Your task to perform on an android device: all mails in gmail Image 0: 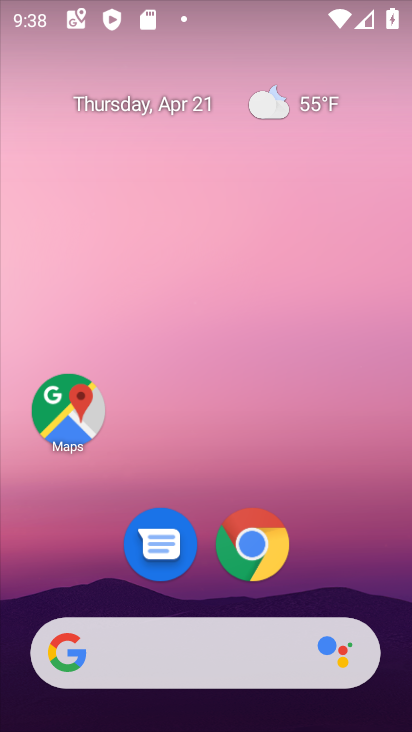
Step 0: drag from (334, 544) to (215, 3)
Your task to perform on an android device: all mails in gmail Image 1: 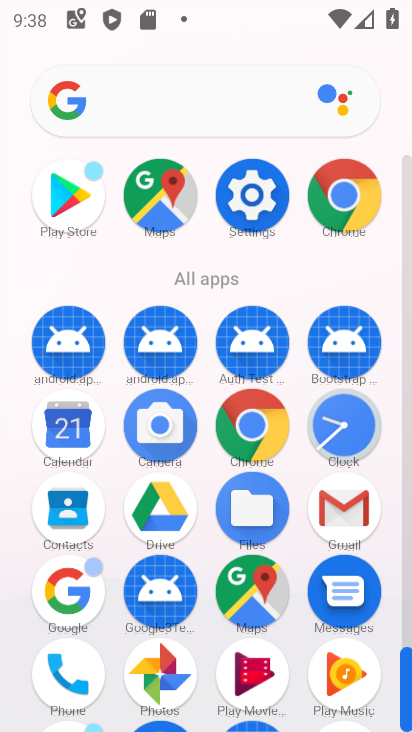
Step 1: click (342, 502)
Your task to perform on an android device: all mails in gmail Image 2: 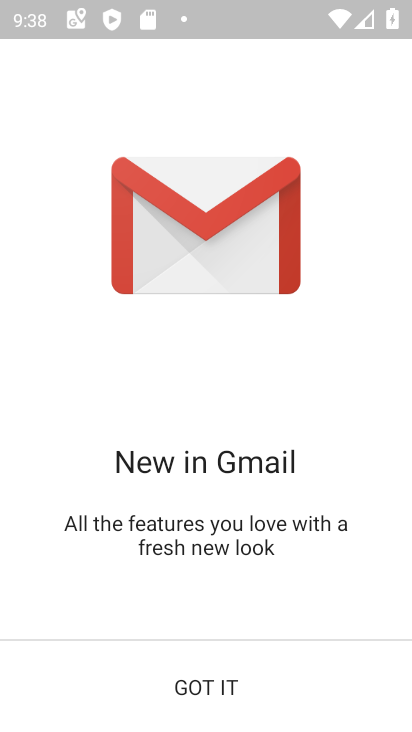
Step 2: click (213, 684)
Your task to perform on an android device: all mails in gmail Image 3: 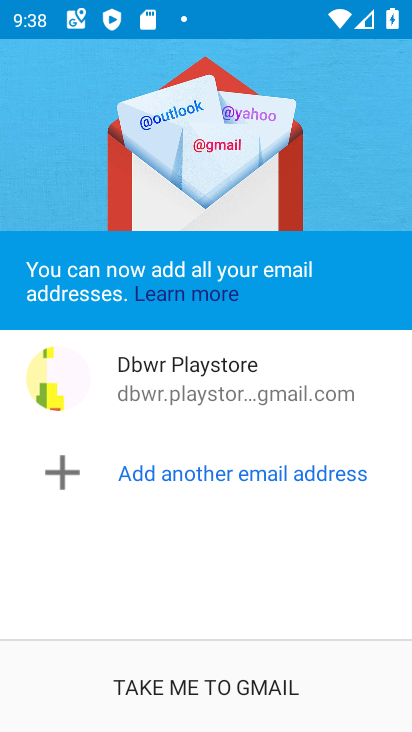
Step 3: click (232, 674)
Your task to perform on an android device: all mails in gmail Image 4: 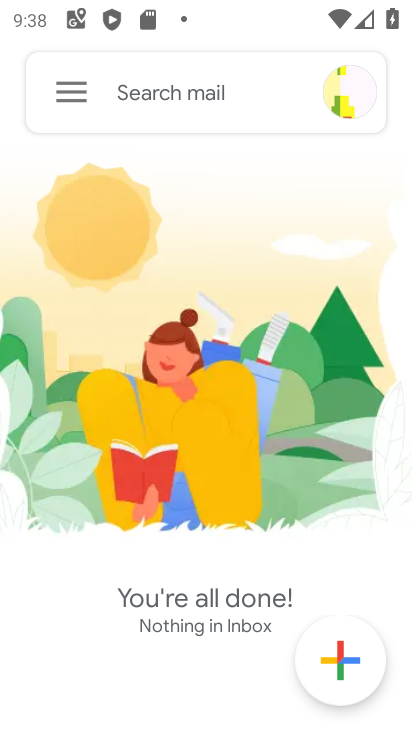
Step 4: click (77, 91)
Your task to perform on an android device: all mails in gmail Image 5: 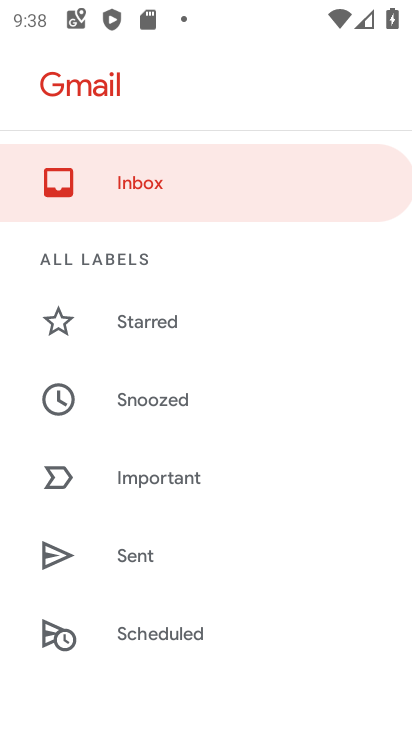
Step 5: drag from (284, 583) to (280, 171)
Your task to perform on an android device: all mails in gmail Image 6: 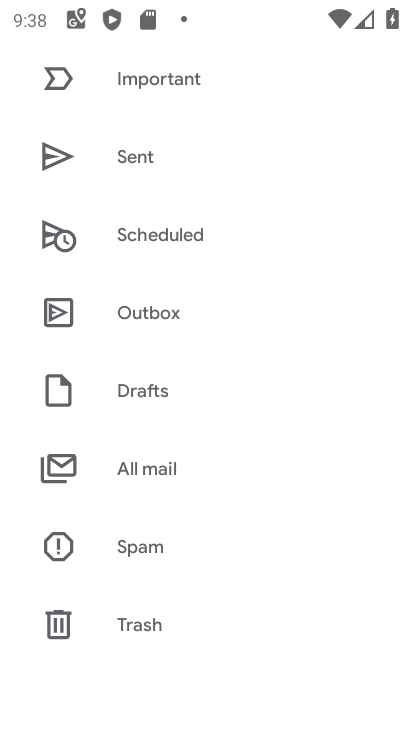
Step 6: click (162, 462)
Your task to perform on an android device: all mails in gmail Image 7: 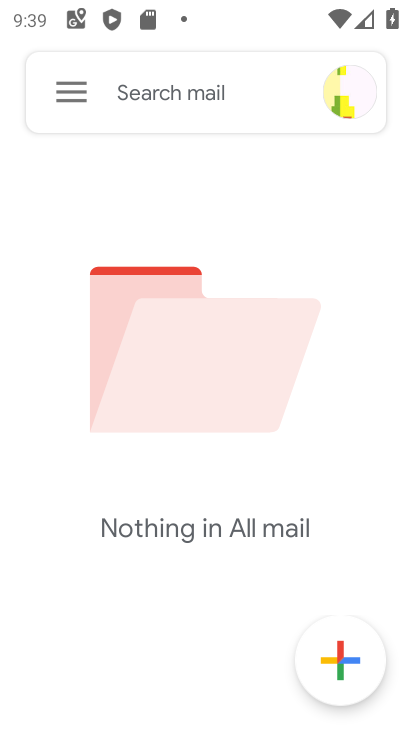
Step 7: task complete